Your task to perform on an android device: What's the weather? Image 0: 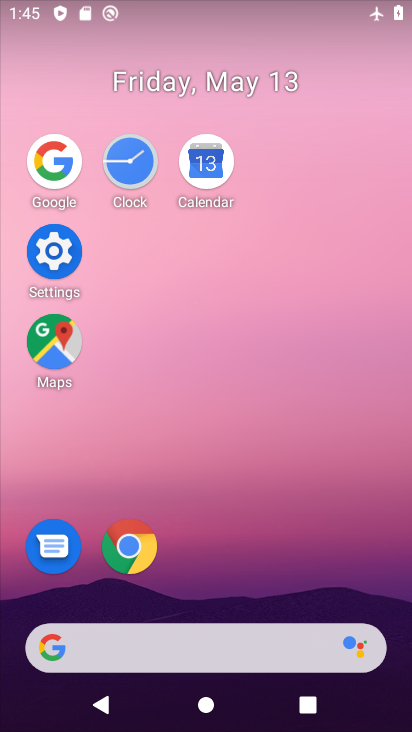
Step 0: click (56, 154)
Your task to perform on an android device: What's the weather? Image 1: 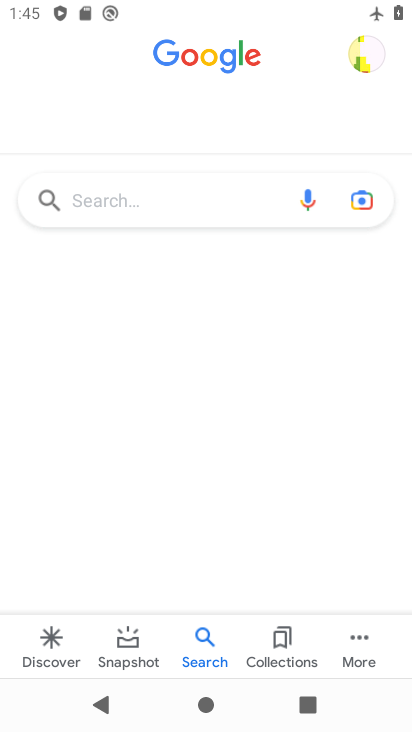
Step 1: click (161, 210)
Your task to perform on an android device: What's the weather? Image 2: 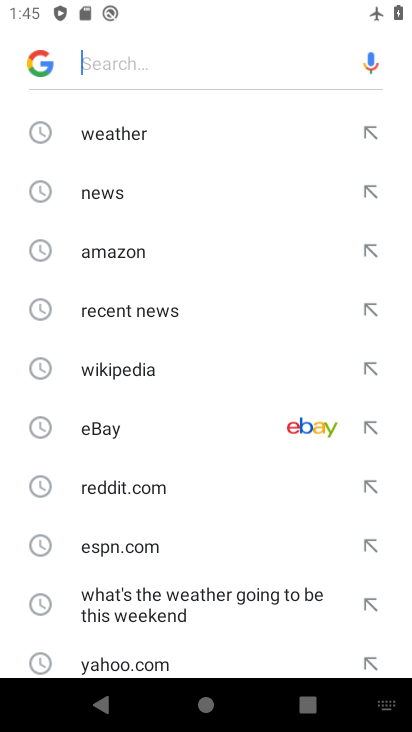
Step 2: click (140, 142)
Your task to perform on an android device: What's the weather? Image 3: 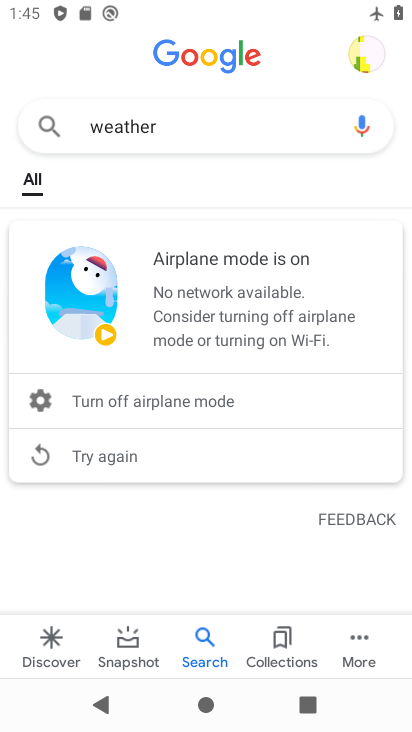
Step 3: task complete